Your task to perform on an android device: Go to Android settings Image 0: 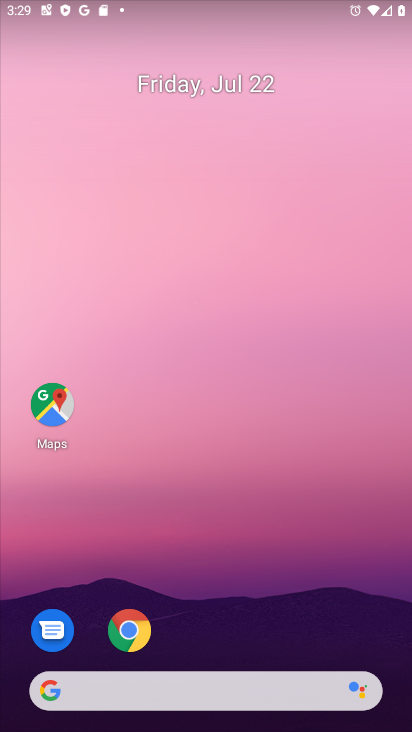
Step 0: click (182, 40)
Your task to perform on an android device: Go to Android settings Image 1: 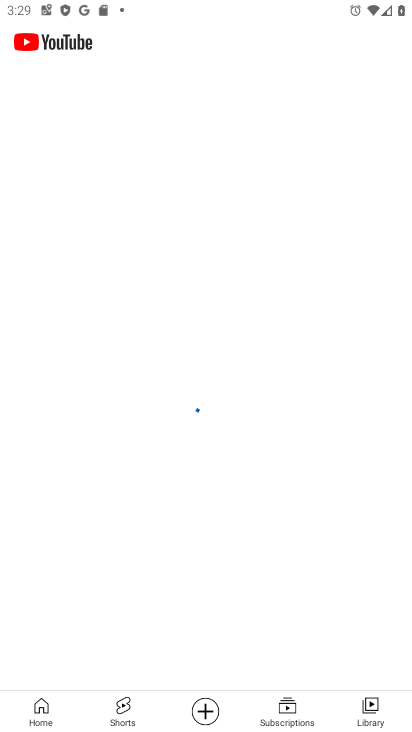
Step 1: drag from (230, 672) to (166, 232)
Your task to perform on an android device: Go to Android settings Image 2: 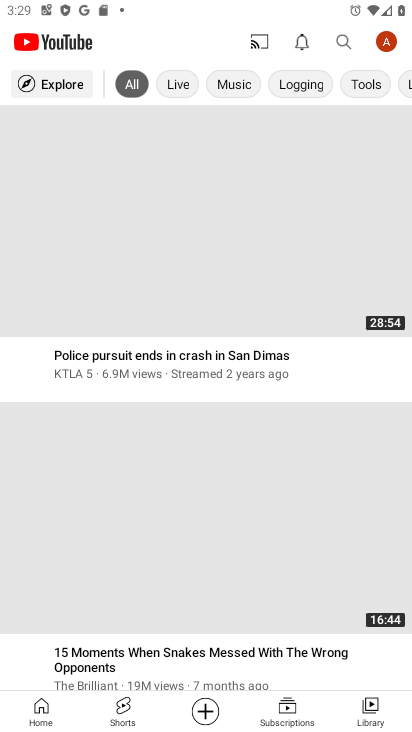
Step 2: press back button
Your task to perform on an android device: Go to Android settings Image 3: 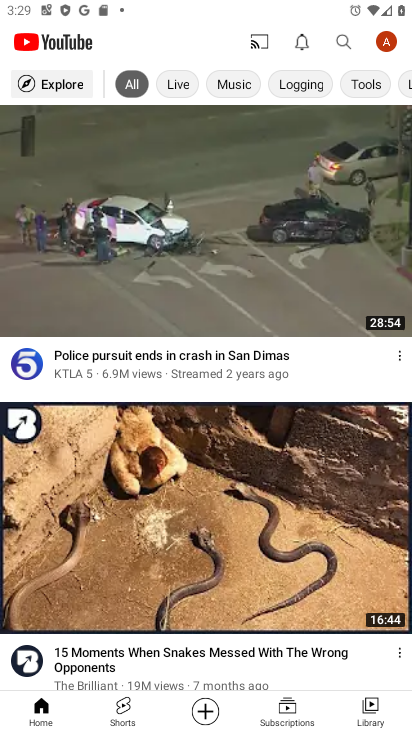
Step 3: press back button
Your task to perform on an android device: Go to Android settings Image 4: 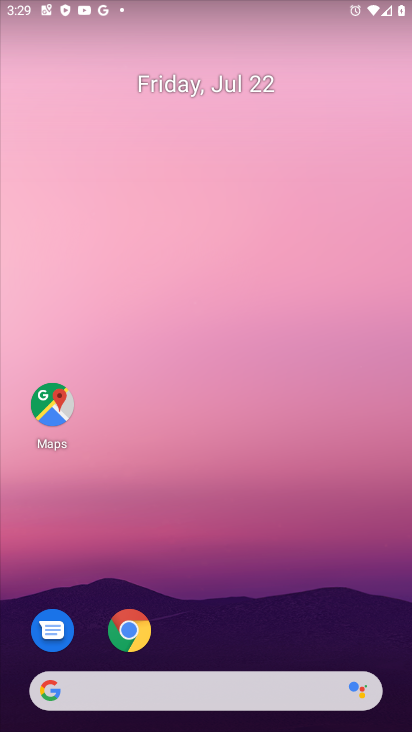
Step 4: drag from (197, 681) to (181, 12)
Your task to perform on an android device: Go to Android settings Image 5: 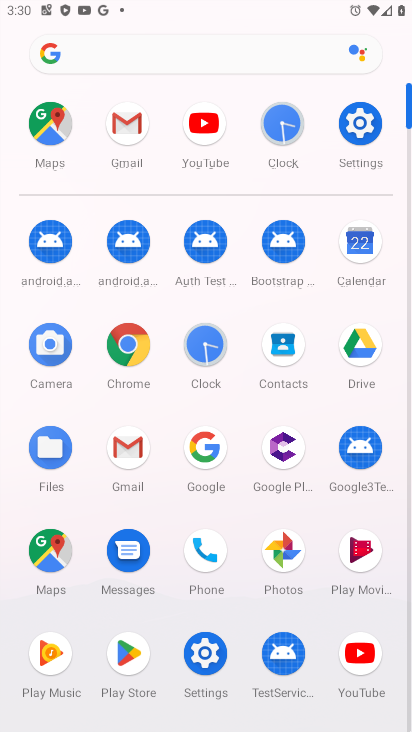
Step 5: click (368, 118)
Your task to perform on an android device: Go to Android settings Image 6: 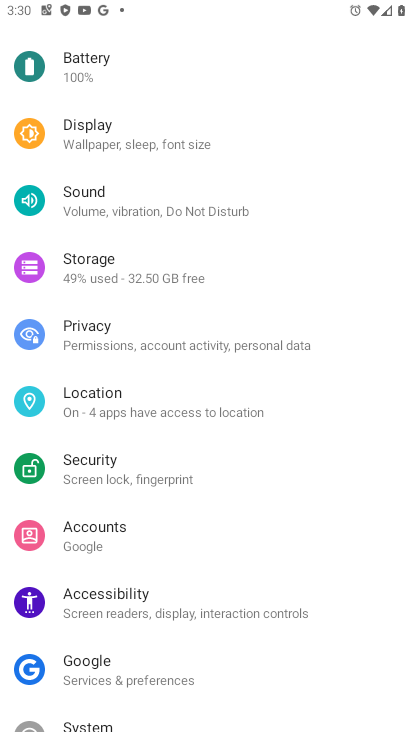
Step 6: task complete